Your task to perform on an android device: Open settings on Google Maps Image 0: 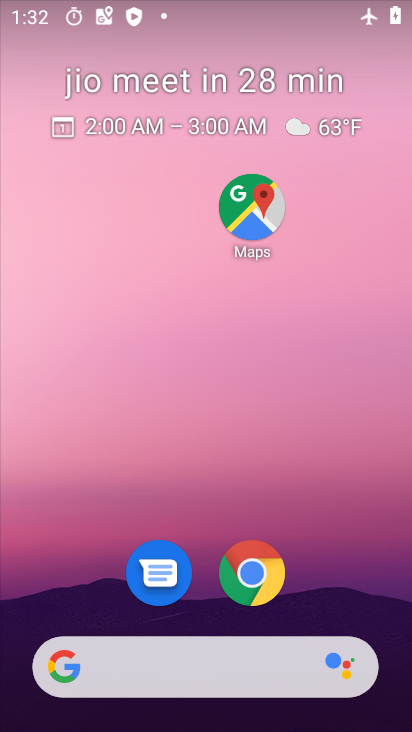
Step 0: drag from (161, 357) to (118, 67)
Your task to perform on an android device: Open settings on Google Maps Image 1: 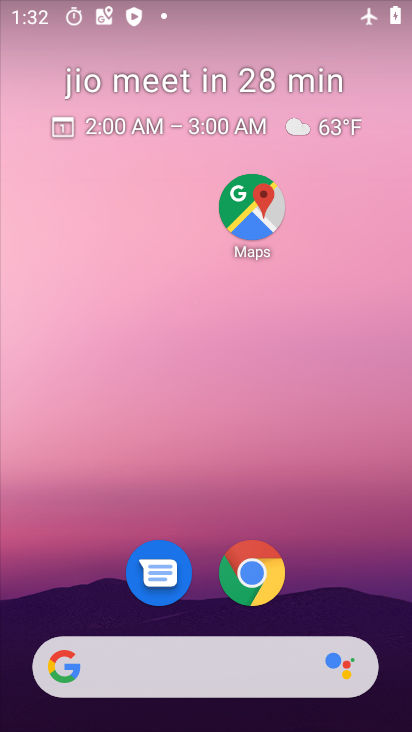
Step 1: drag from (206, 457) to (185, 11)
Your task to perform on an android device: Open settings on Google Maps Image 2: 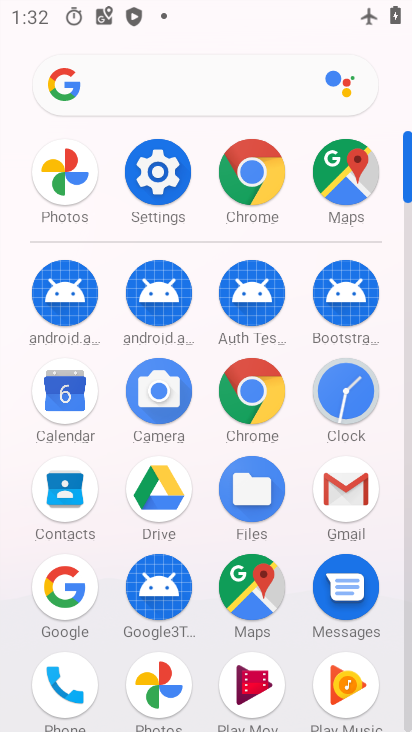
Step 2: click (256, 609)
Your task to perform on an android device: Open settings on Google Maps Image 3: 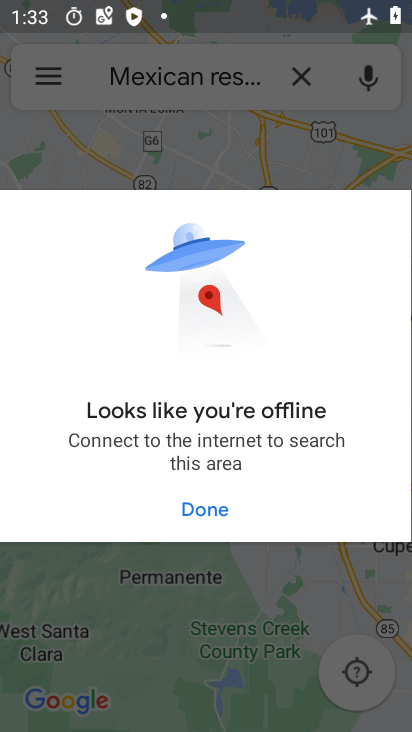
Step 3: click (204, 519)
Your task to perform on an android device: Open settings on Google Maps Image 4: 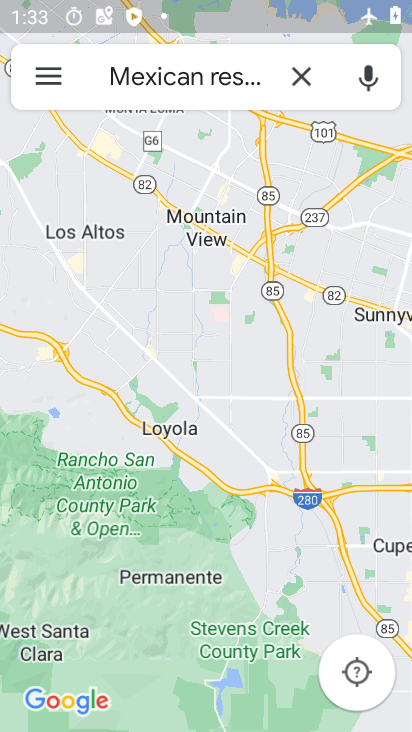
Step 4: click (26, 86)
Your task to perform on an android device: Open settings on Google Maps Image 5: 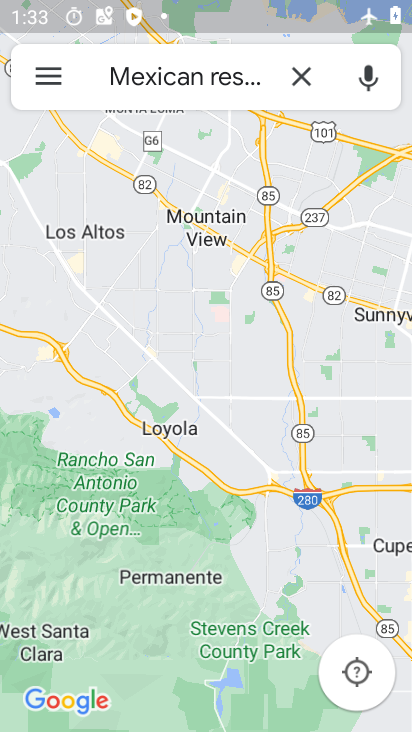
Step 5: click (56, 81)
Your task to perform on an android device: Open settings on Google Maps Image 6: 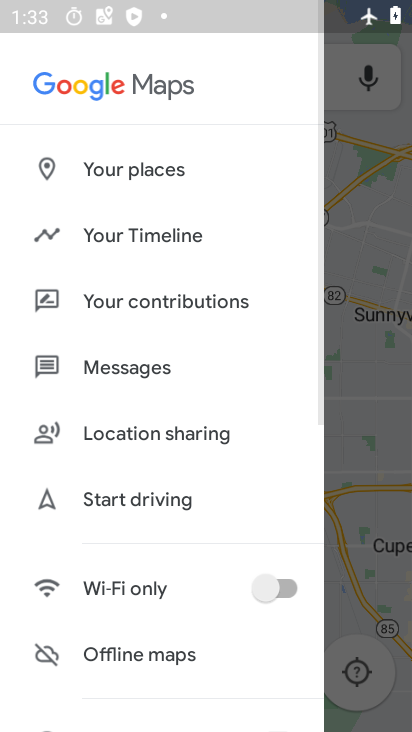
Step 6: drag from (138, 557) to (155, 144)
Your task to perform on an android device: Open settings on Google Maps Image 7: 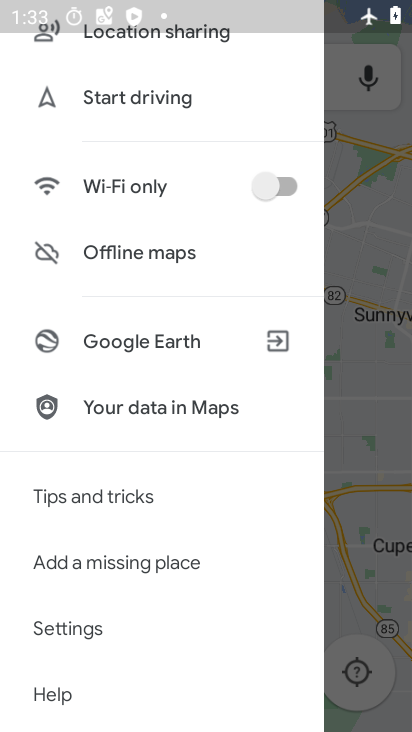
Step 7: click (105, 636)
Your task to perform on an android device: Open settings on Google Maps Image 8: 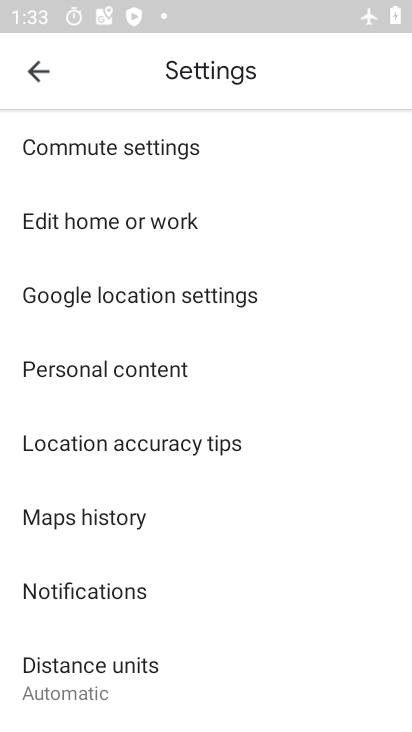
Step 8: task complete